Your task to perform on an android device: make emails show in primary in the gmail app Image 0: 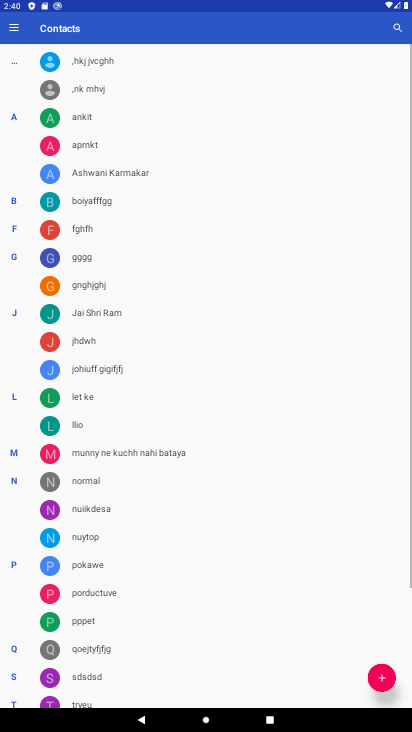
Step 0: press home button
Your task to perform on an android device: make emails show in primary in the gmail app Image 1: 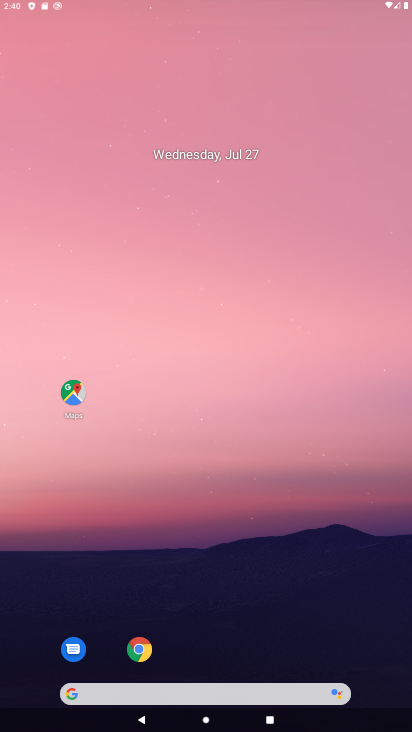
Step 1: drag from (379, 687) to (181, 16)
Your task to perform on an android device: make emails show in primary in the gmail app Image 2: 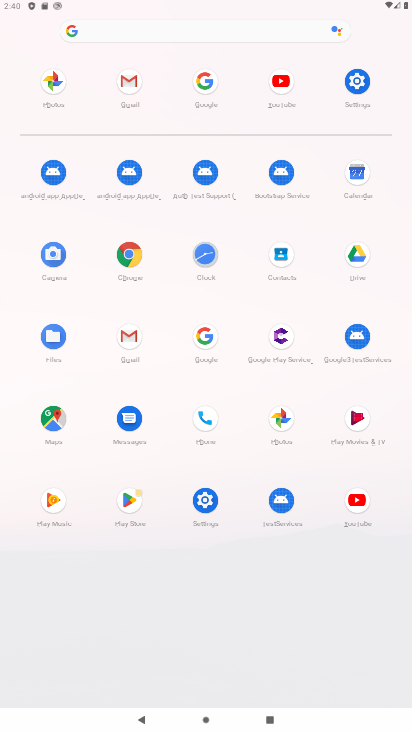
Step 2: click (123, 342)
Your task to perform on an android device: make emails show in primary in the gmail app Image 3: 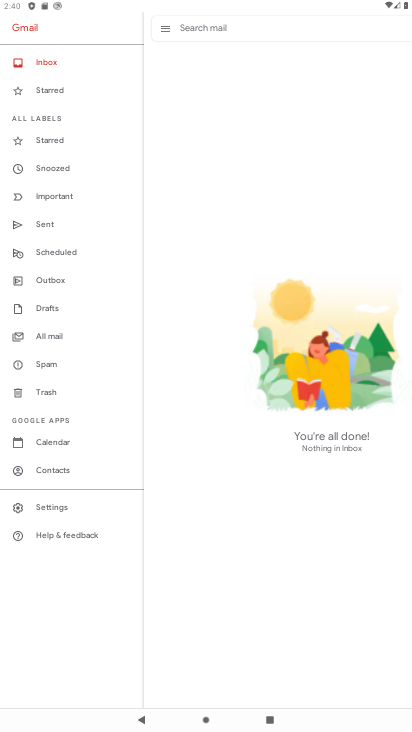
Step 3: task complete